Your task to perform on an android device: Open Google Maps and go to "Timeline" Image 0: 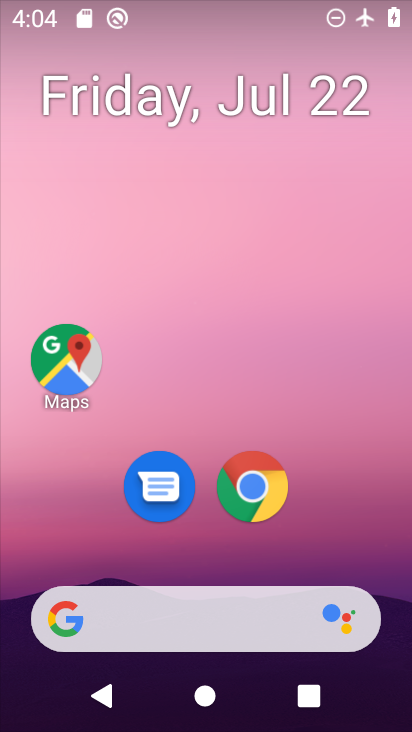
Step 0: click (53, 344)
Your task to perform on an android device: Open Google Maps and go to "Timeline" Image 1: 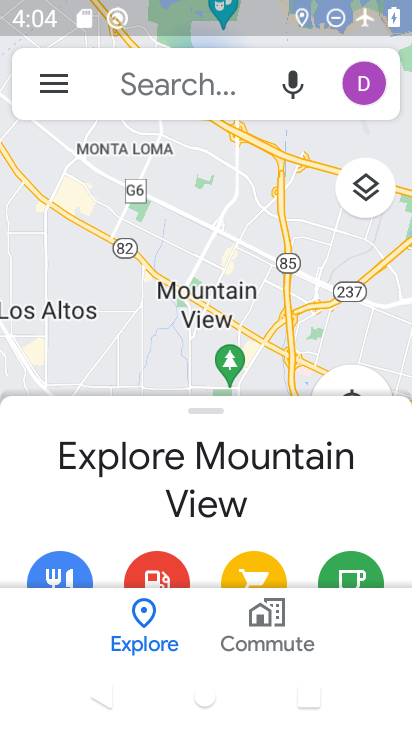
Step 1: click (52, 81)
Your task to perform on an android device: Open Google Maps and go to "Timeline" Image 2: 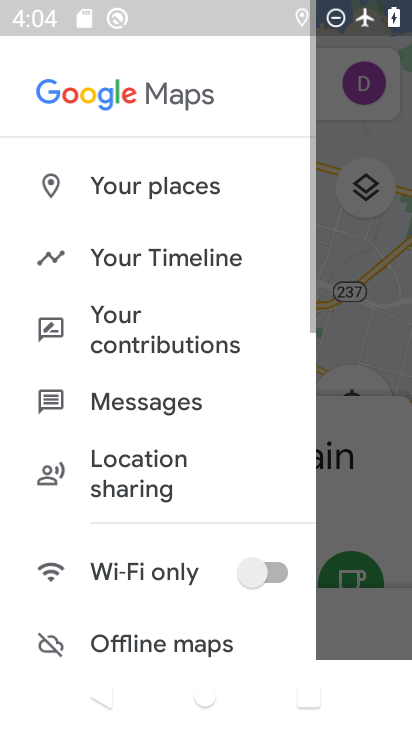
Step 2: click (141, 265)
Your task to perform on an android device: Open Google Maps and go to "Timeline" Image 3: 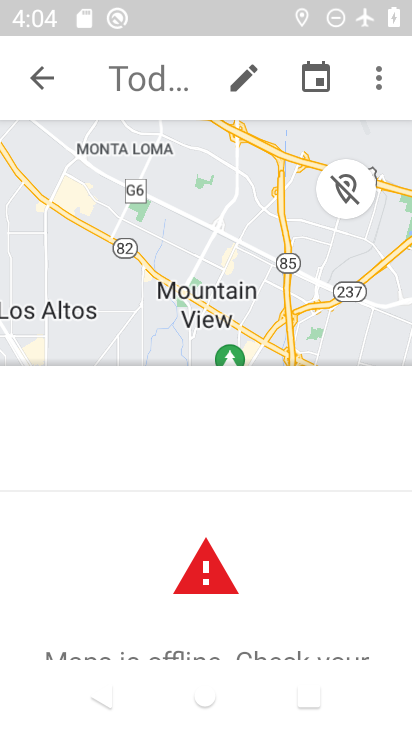
Step 3: task complete